Your task to perform on an android device: open chrome and create a bookmark for the current page Image 0: 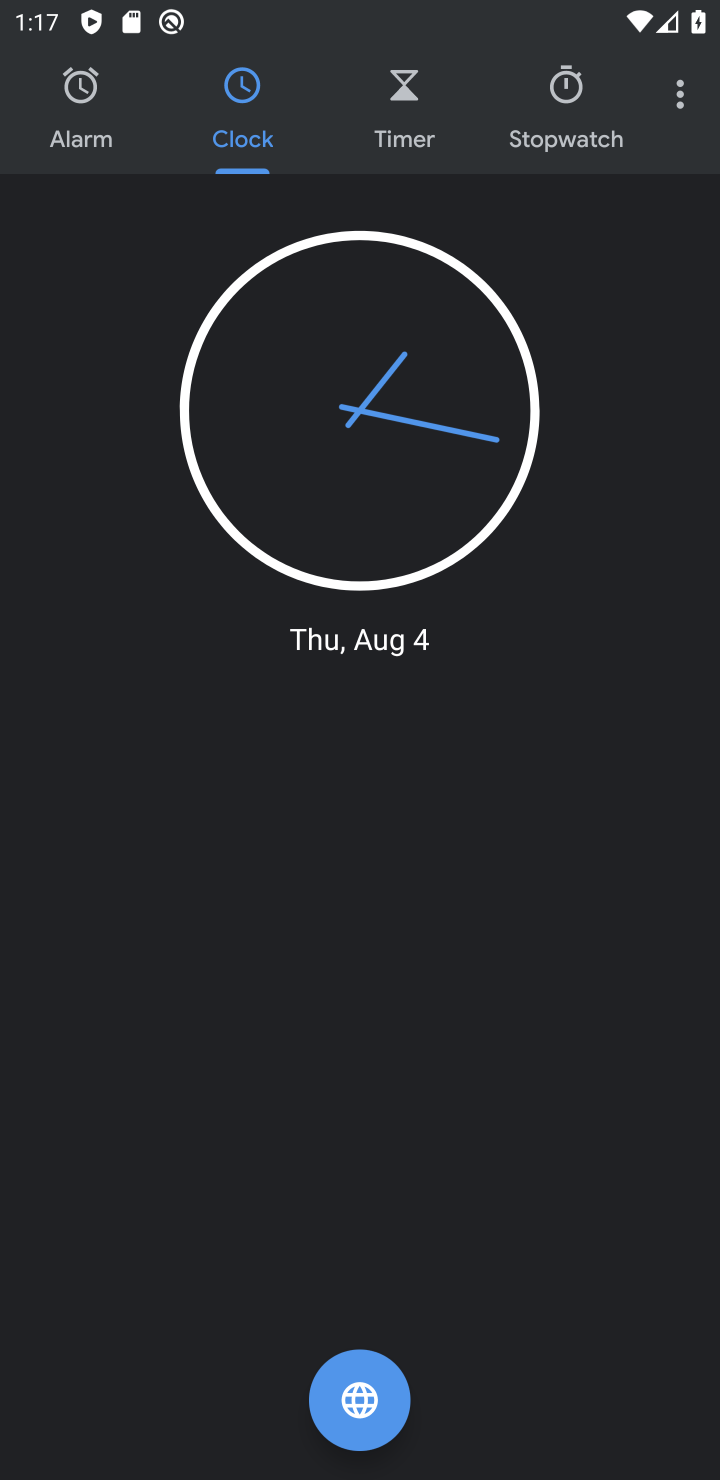
Step 0: press home button
Your task to perform on an android device: open chrome and create a bookmark for the current page Image 1: 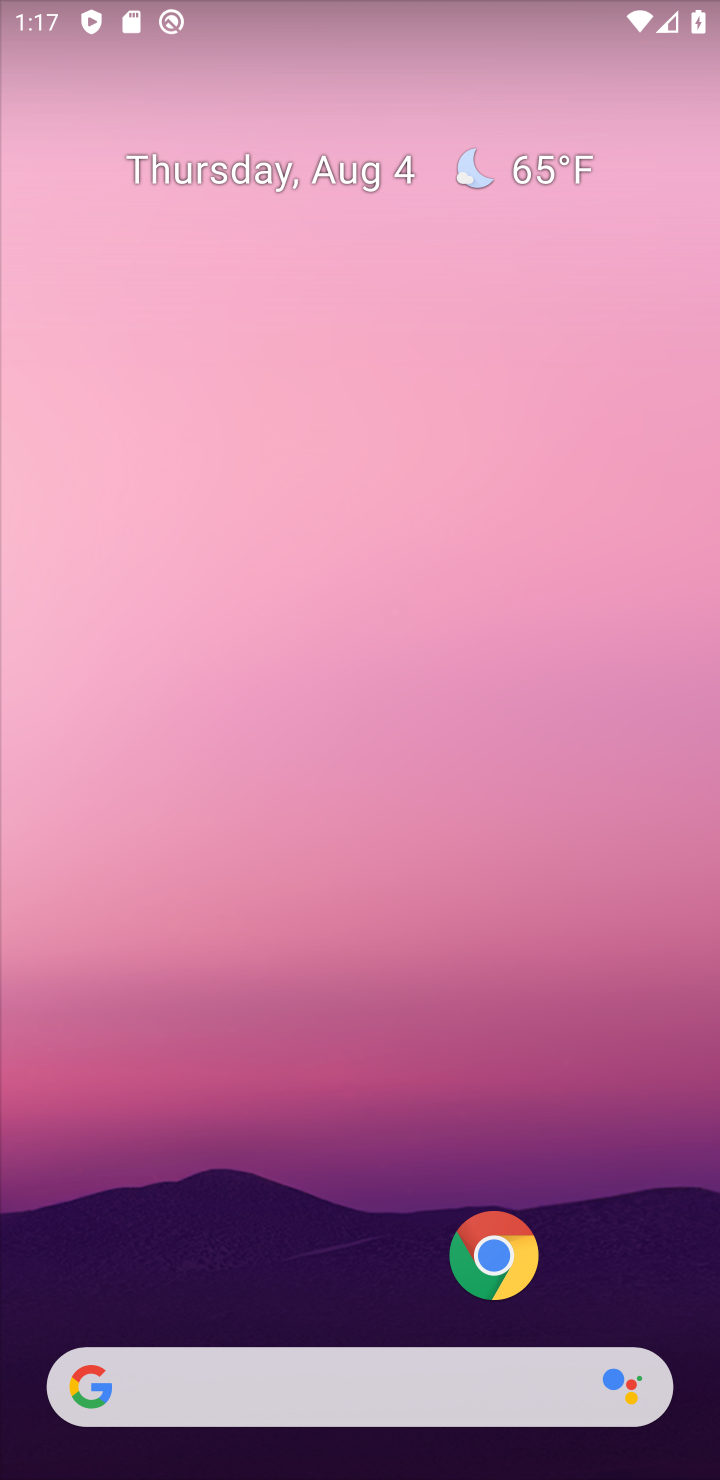
Step 1: drag from (243, 1256) to (167, 82)
Your task to perform on an android device: open chrome and create a bookmark for the current page Image 2: 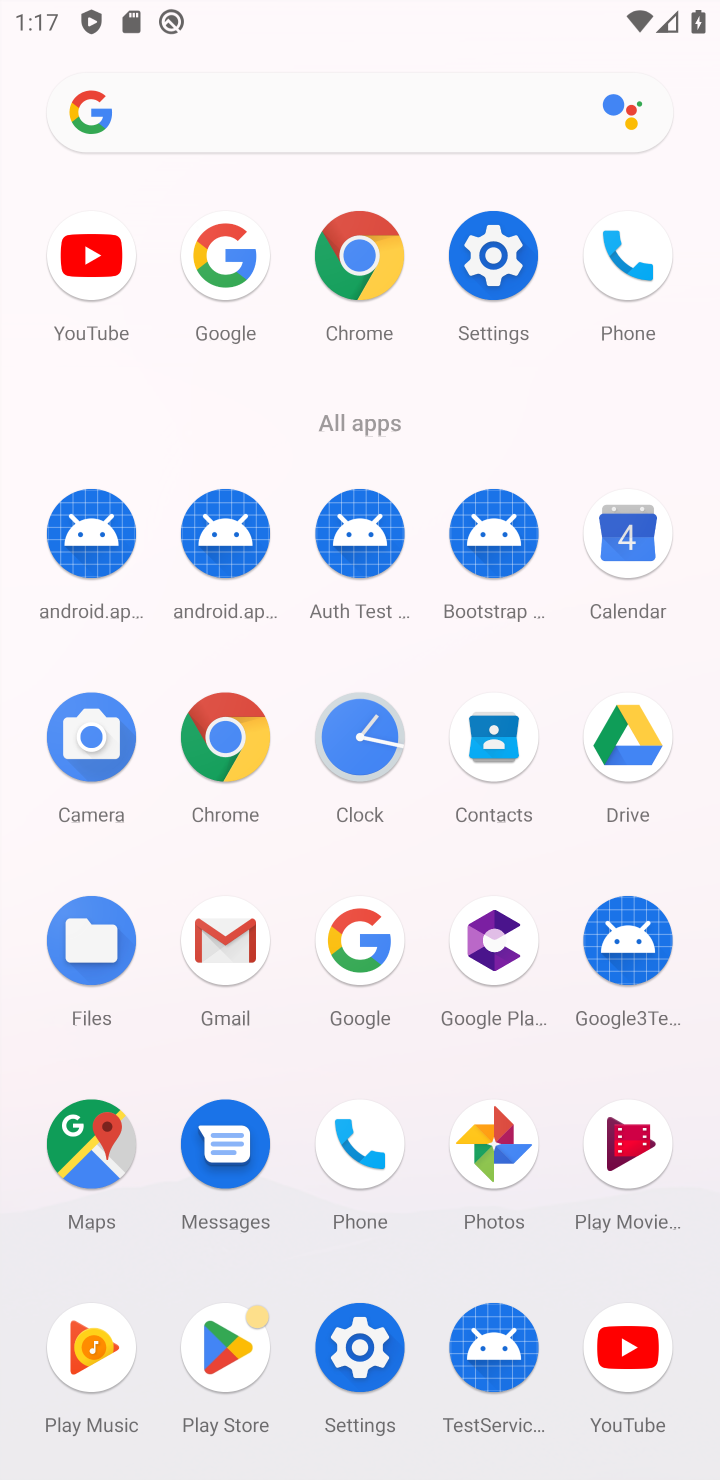
Step 2: click (349, 293)
Your task to perform on an android device: open chrome and create a bookmark for the current page Image 3: 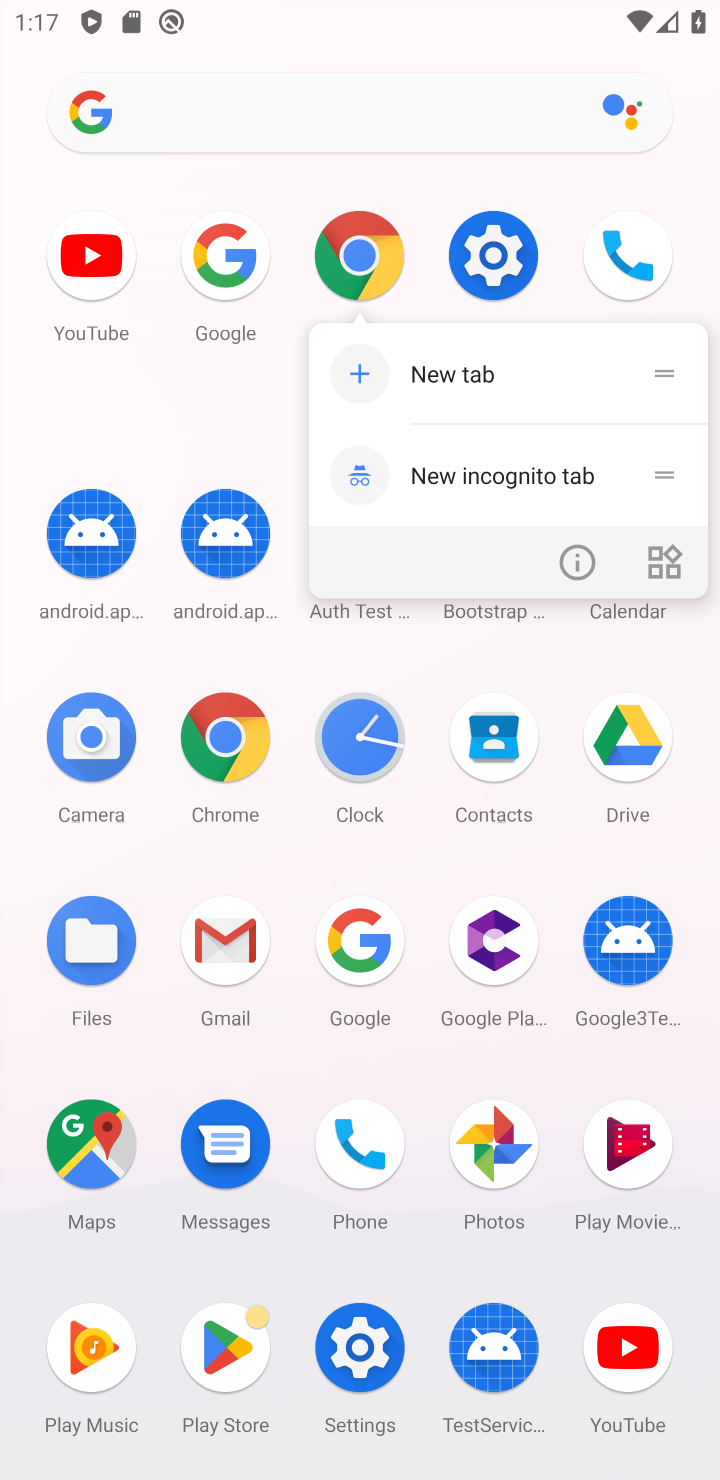
Step 3: click (349, 283)
Your task to perform on an android device: open chrome and create a bookmark for the current page Image 4: 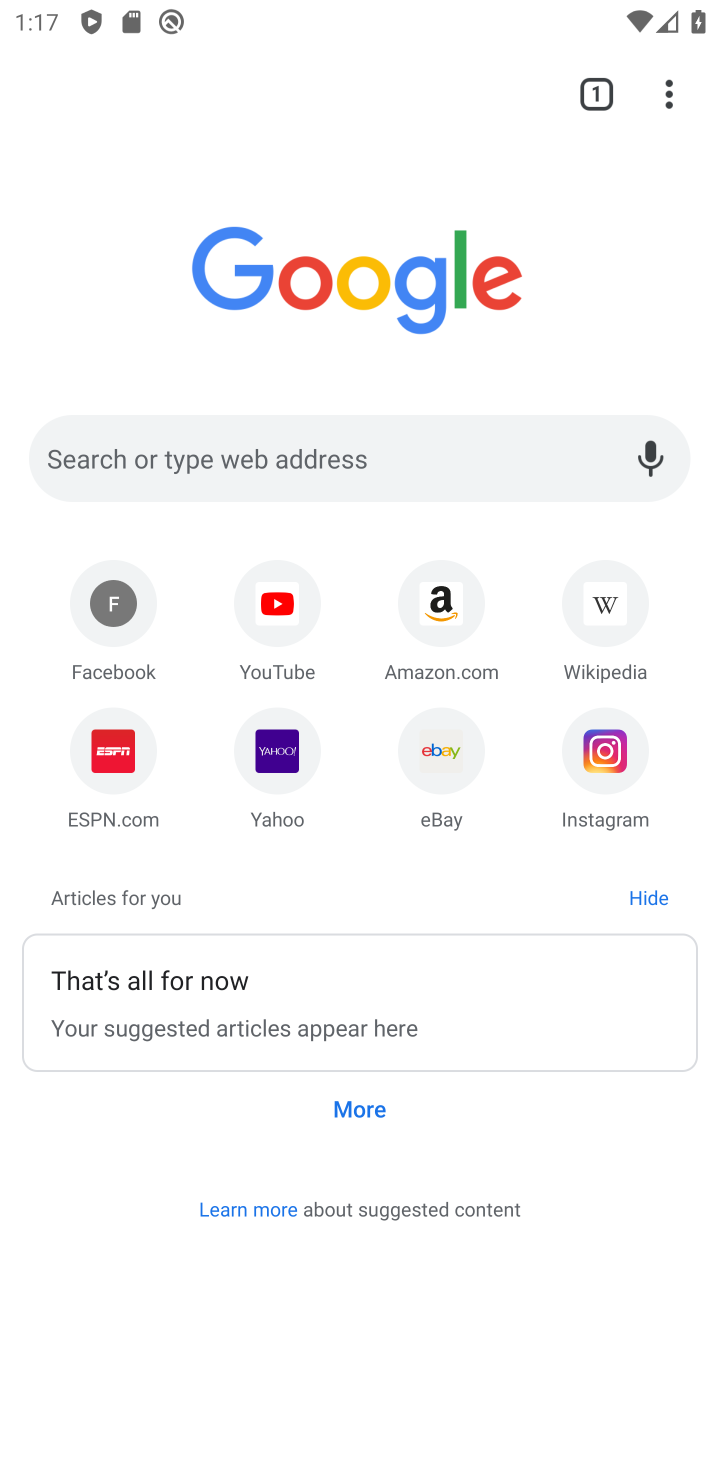
Step 4: task complete